Your task to perform on an android device: delete the emails in spam in the gmail app Image 0: 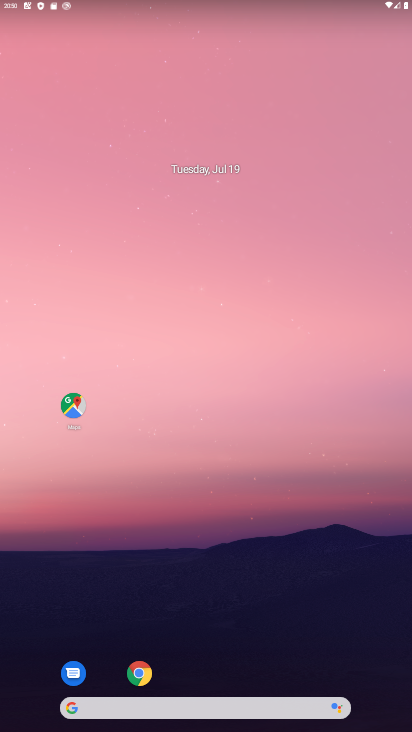
Step 0: drag from (218, 627) to (222, 17)
Your task to perform on an android device: delete the emails in spam in the gmail app Image 1: 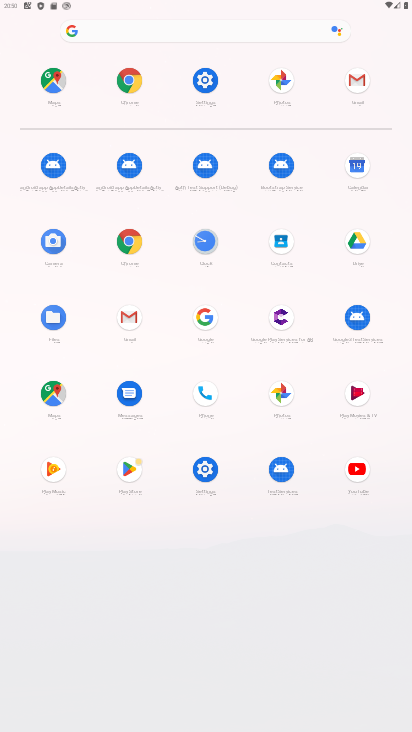
Step 1: click (129, 321)
Your task to perform on an android device: delete the emails in spam in the gmail app Image 2: 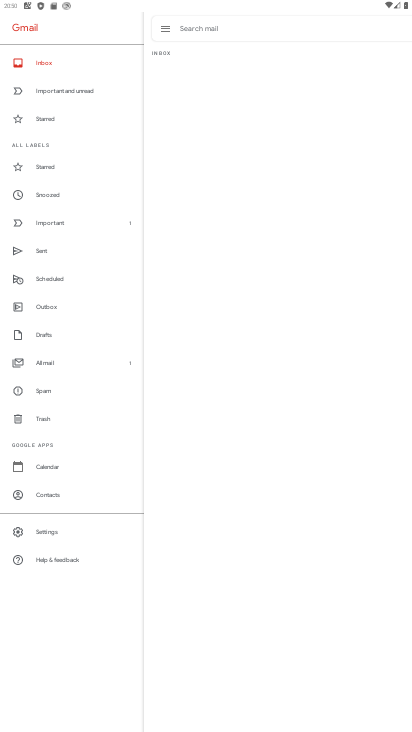
Step 2: click (50, 390)
Your task to perform on an android device: delete the emails in spam in the gmail app Image 3: 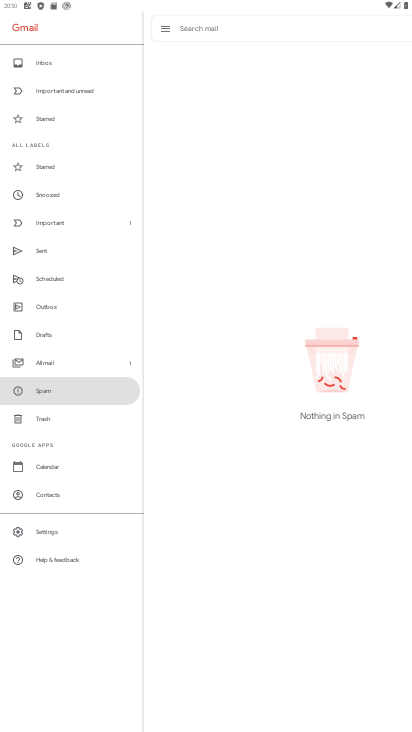
Step 3: task complete